Your task to perform on an android device: set default search engine in the chrome app Image 0: 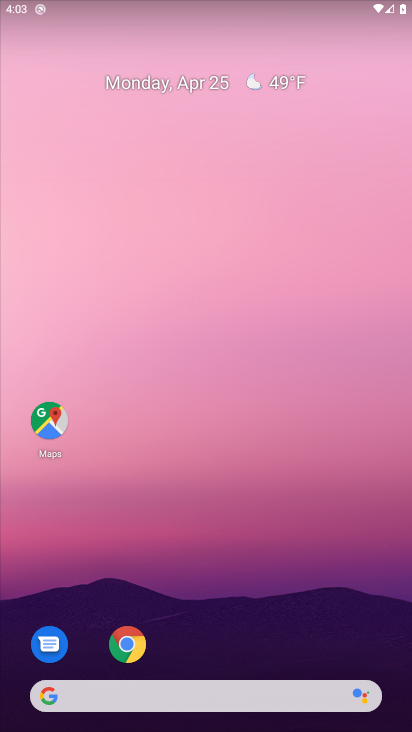
Step 0: click (123, 646)
Your task to perform on an android device: set default search engine in the chrome app Image 1: 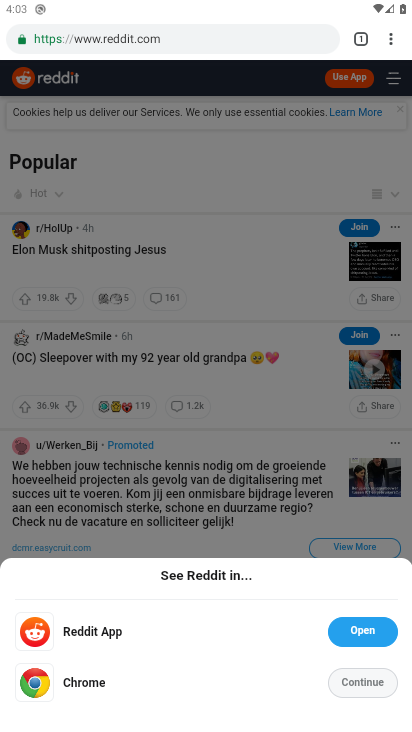
Step 1: click (393, 37)
Your task to perform on an android device: set default search engine in the chrome app Image 2: 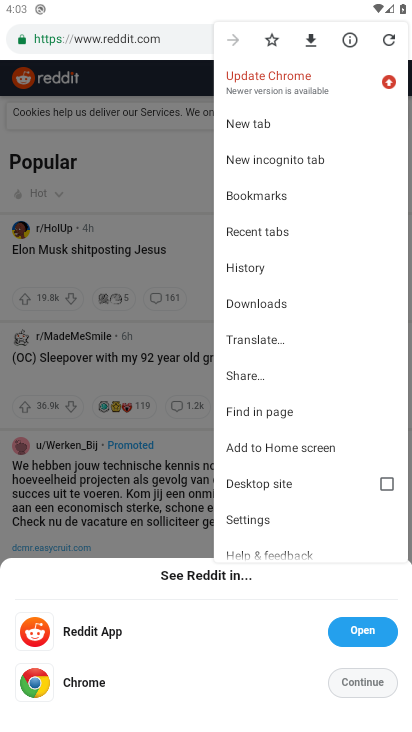
Step 2: click (288, 508)
Your task to perform on an android device: set default search engine in the chrome app Image 3: 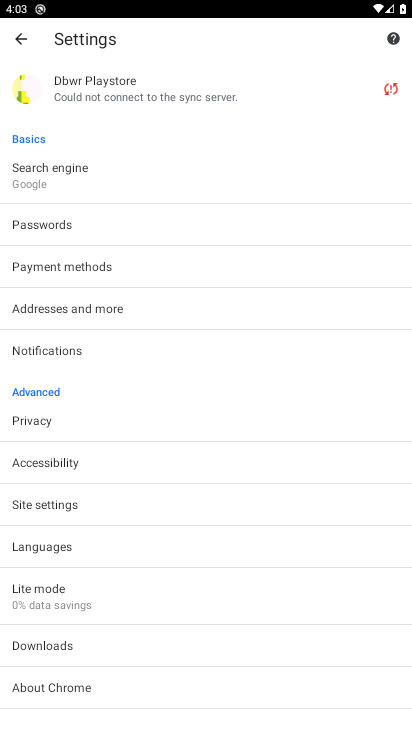
Step 3: click (184, 171)
Your task to perform on an android device: set default search engine in the chrome app Image 4: 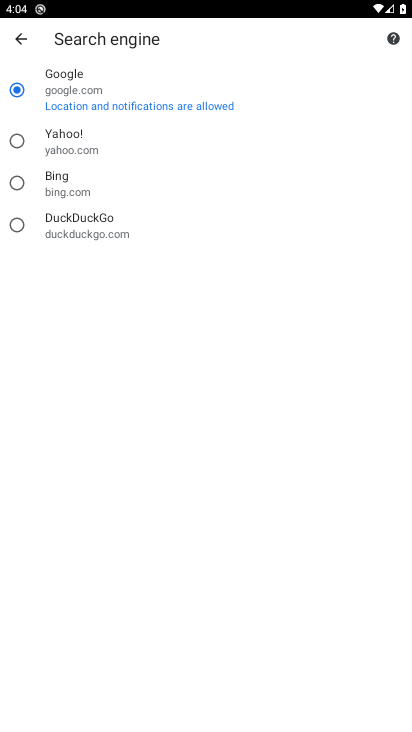
Step 4: click (176, 143)
Your task to perform on an android device: set default search engine in the chrome app Image 5: 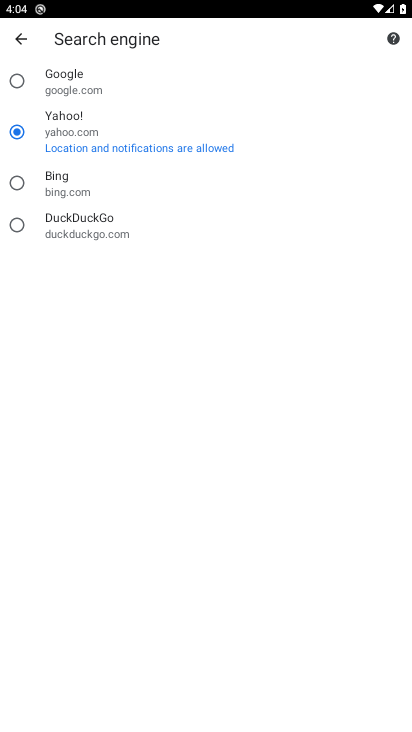
Step 5: task complete